Your task to perform on an android device: find photos in the google photos app Image 0: 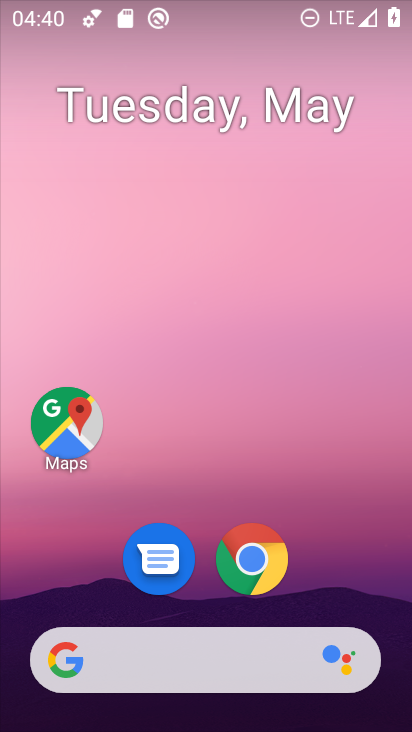
Step 0: drag from (267, 722) to (274, 231)
Your task to perform on an android device: find photos in the google photos app Image 1: 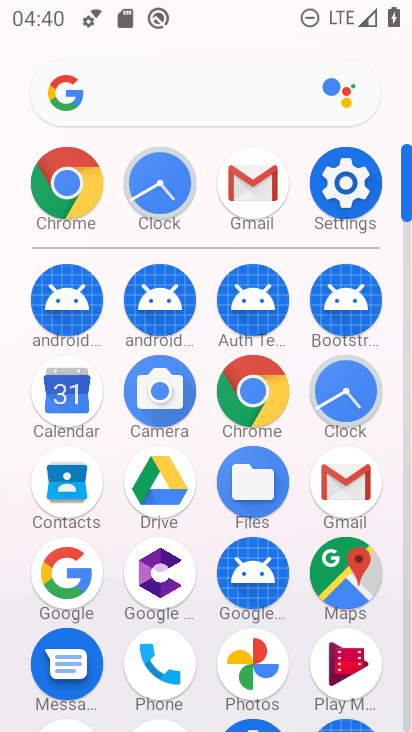
Step 1: click (251, 653)
Your task to perform on an android device: find photos in the google photos app Image 2: 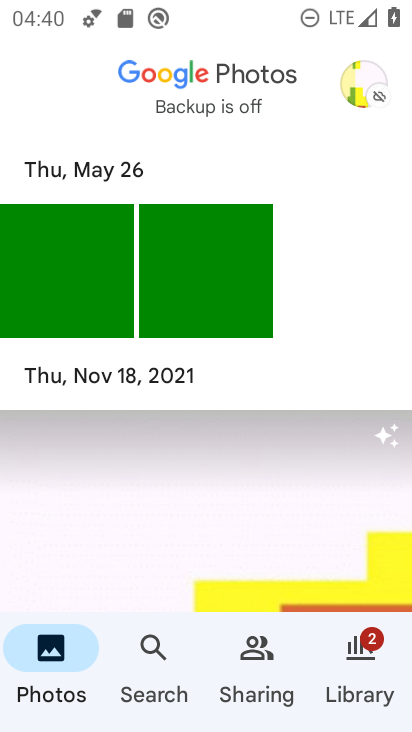
Step 2: click (82, 300)
Your task to perform on an android device: find photos in the google photos app Image 3: 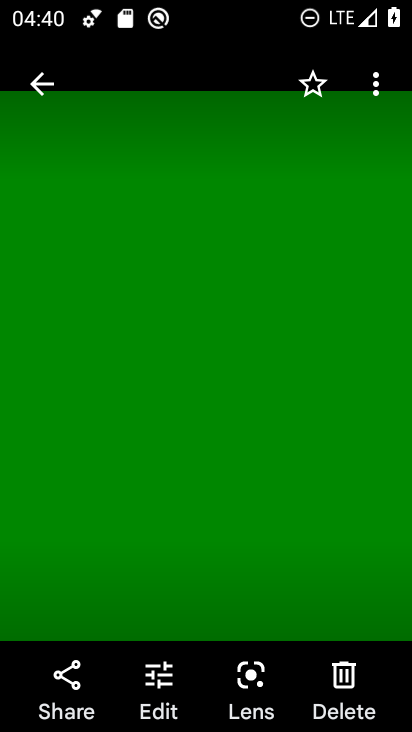
Step 3: task complete